Your task to perform on an android device: Clear the shopping cart on target.com. Add "amazon basics triple a" to the cart on target.com, then select checkout. Image 0: 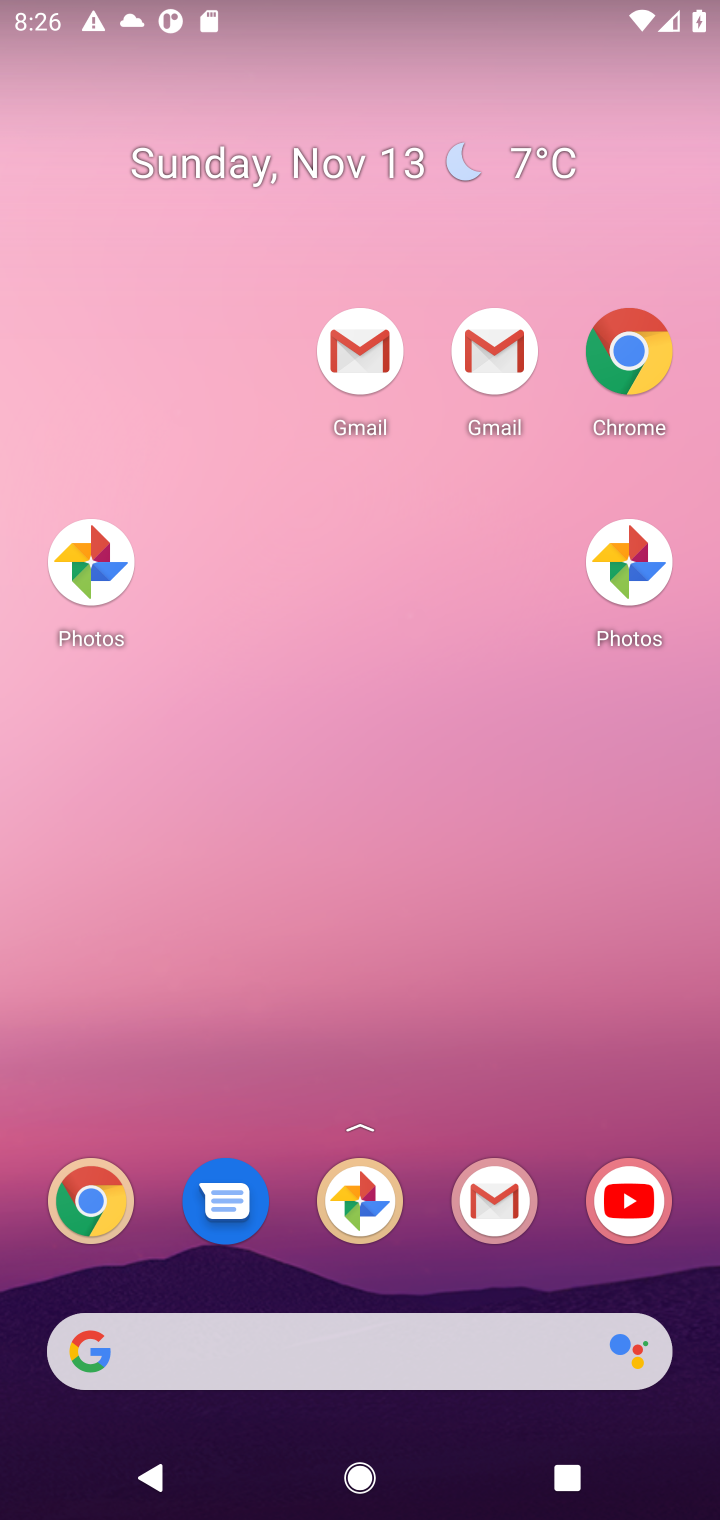
Step 0: drag from (421, 1041) to (477, 82)
Your task to perform on an android device: Clear the shopping cart on target.com. Add "amazon basics triple a" to the cart on target.com, then select checkout. Image 1: 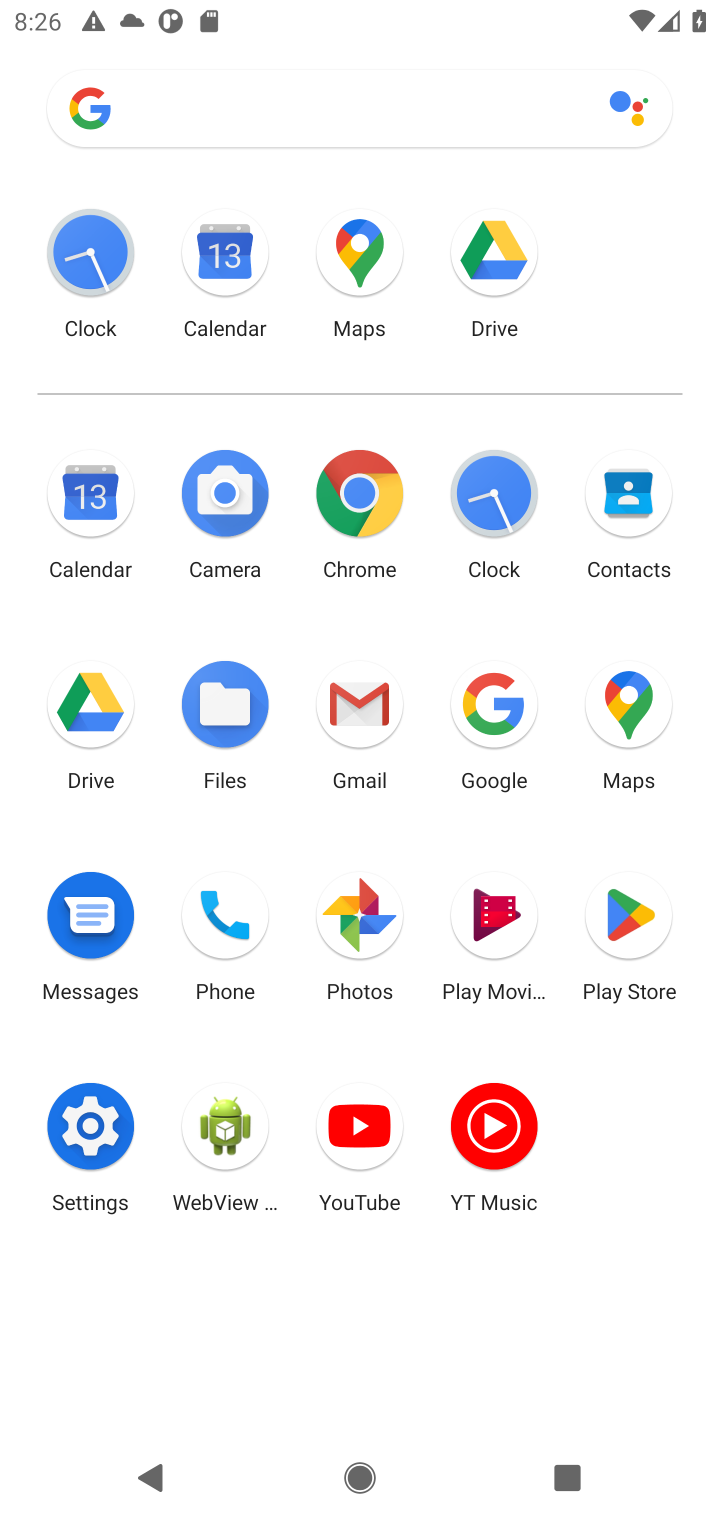
Step 1: click (379, 506)
Your task to perform on an android device: Clear the shopping cart on target.com. Add "amazon basics triple a" to the cart on target.com, then select checkout. Image 2: 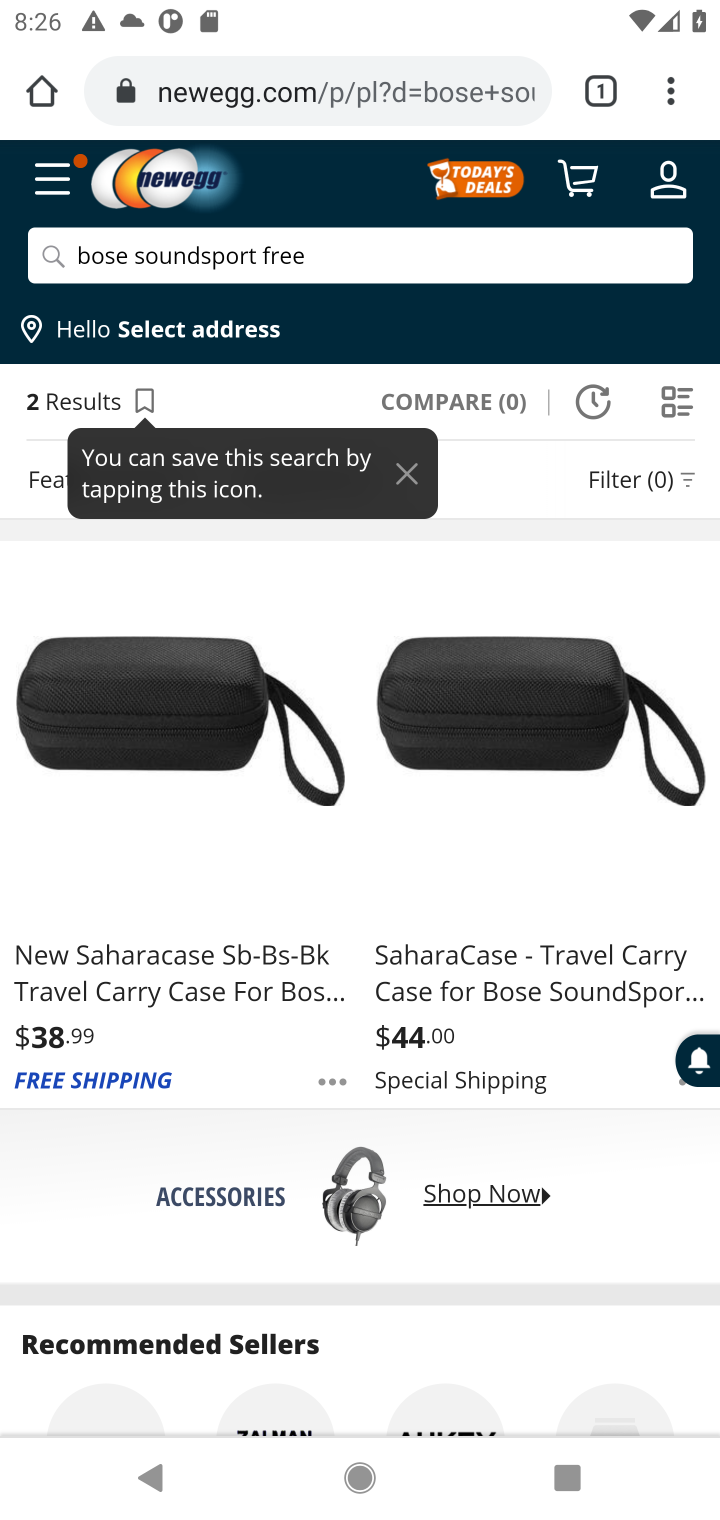
Step 2: click (351, 94)
Your task to perform on an android device: Clear the shopping cart on target.com. Add "amazon basics triple a" to the cart on target.com, then select checkout. Image 3: 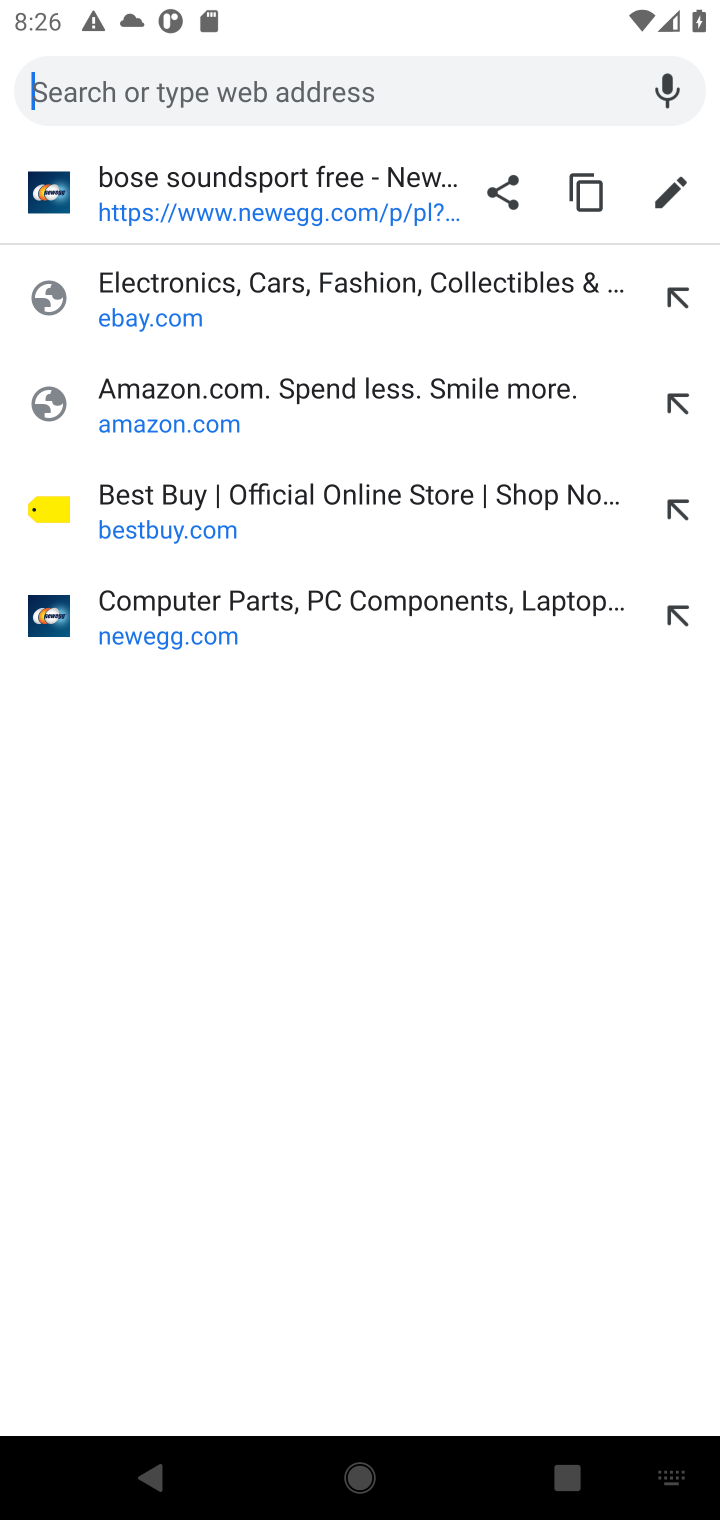
Step 3: type "target.com"
Your task to perform on an android device: Clear the shopping cart on target.com. Add "amazon basics triple a" to the cart on target.com, then select checkout. Image 4: 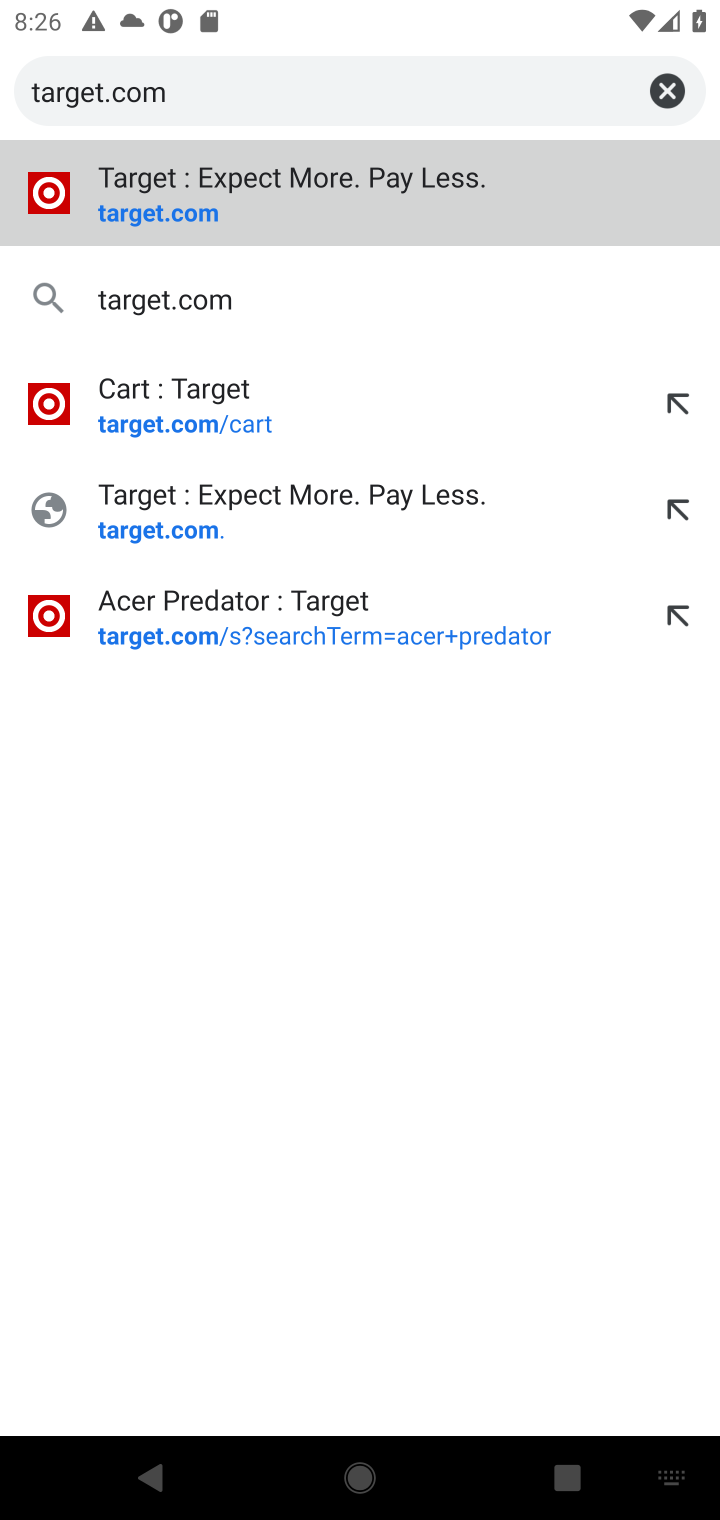
Step 4: press enter
Your task to perform on an android device: Clear the shopping cart on target.com. Add "amazon basics triple a" to the cart on target.com, then select checkout. Image 5: 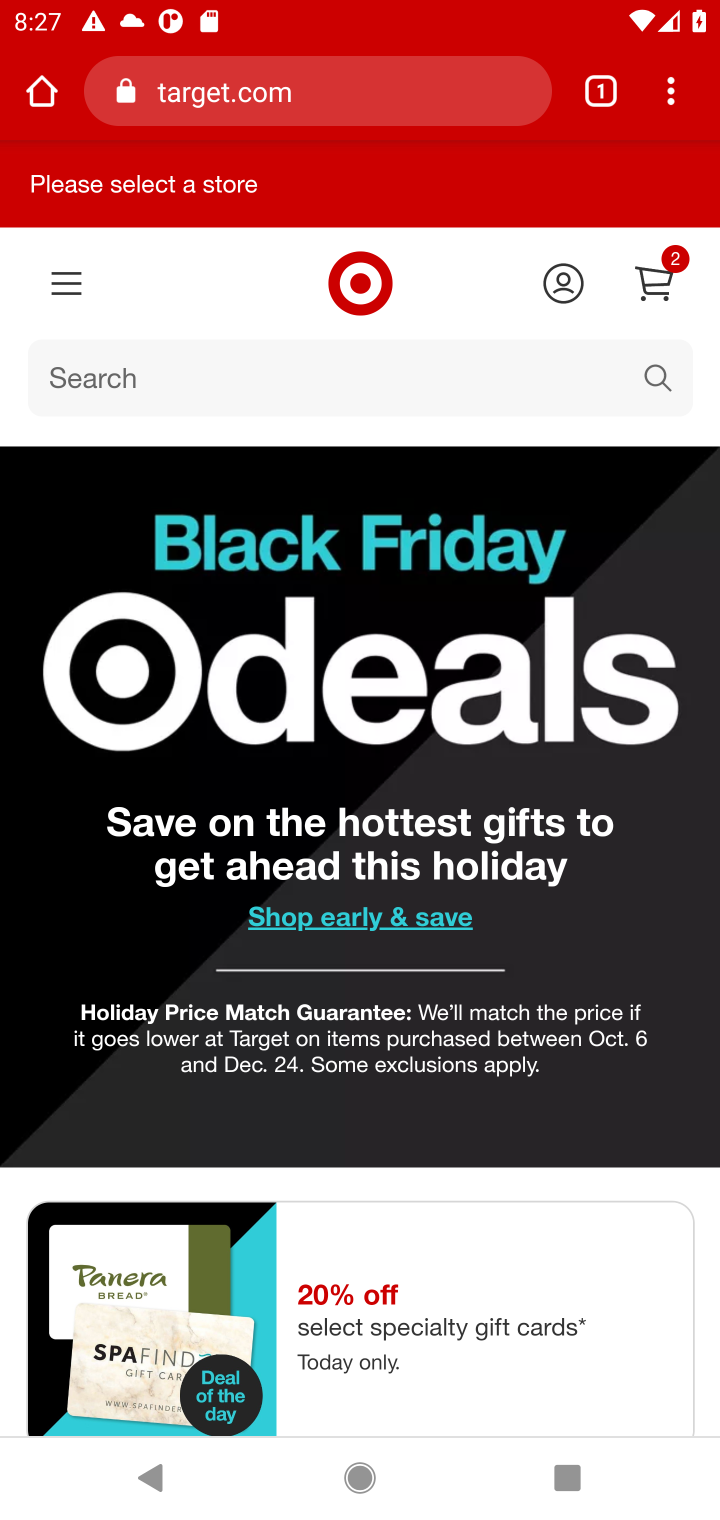
Step 5: click (659, 274)
Your task to perform on an android device: Clear the shopping cart on target.com. Add "amazon basics triple a" to the cart on target.com, then select checkout. Image 6: 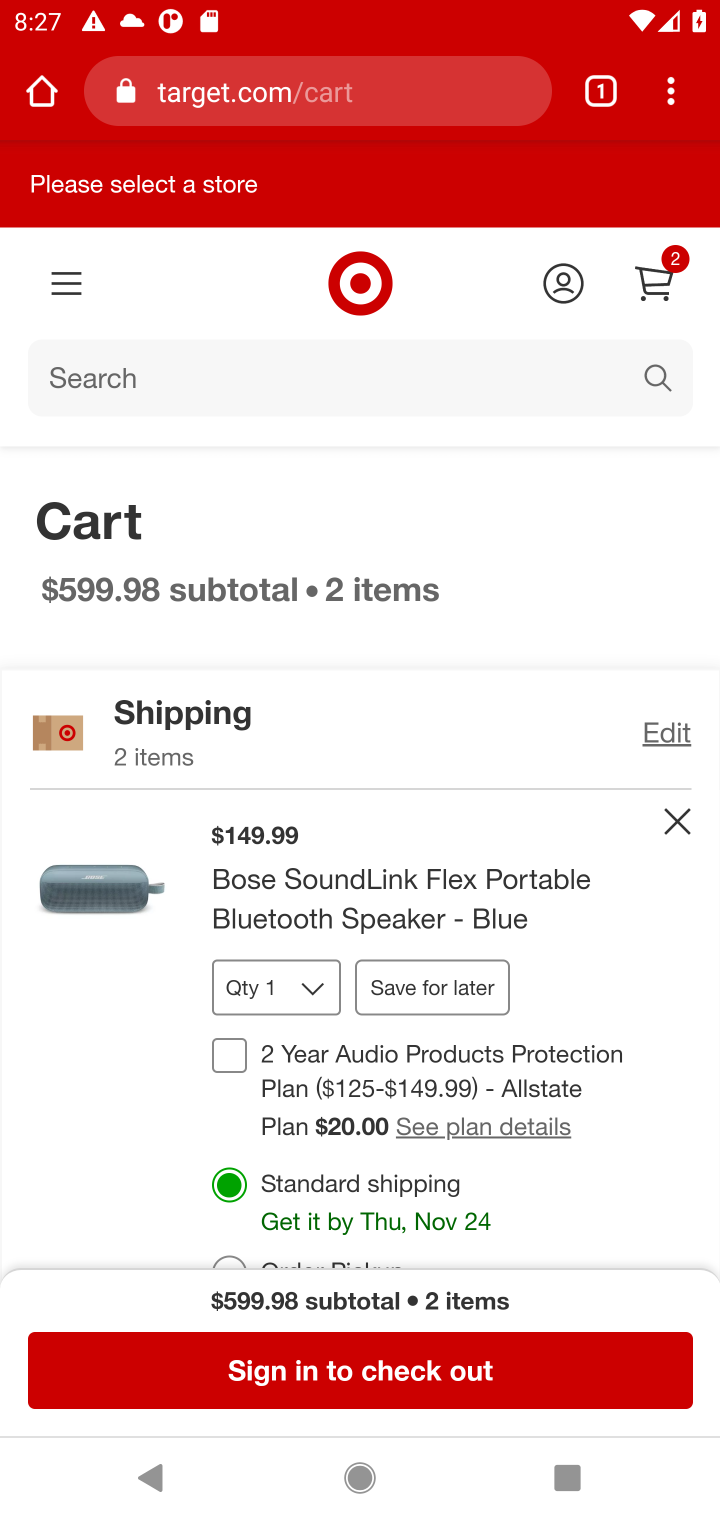
Step 6: click (676, 808)
Your task to perform on an android device: Clear the shopping cart on target.com. Add "amazon basics triple a" to the cart on target.com, then select checkout. Image 7: 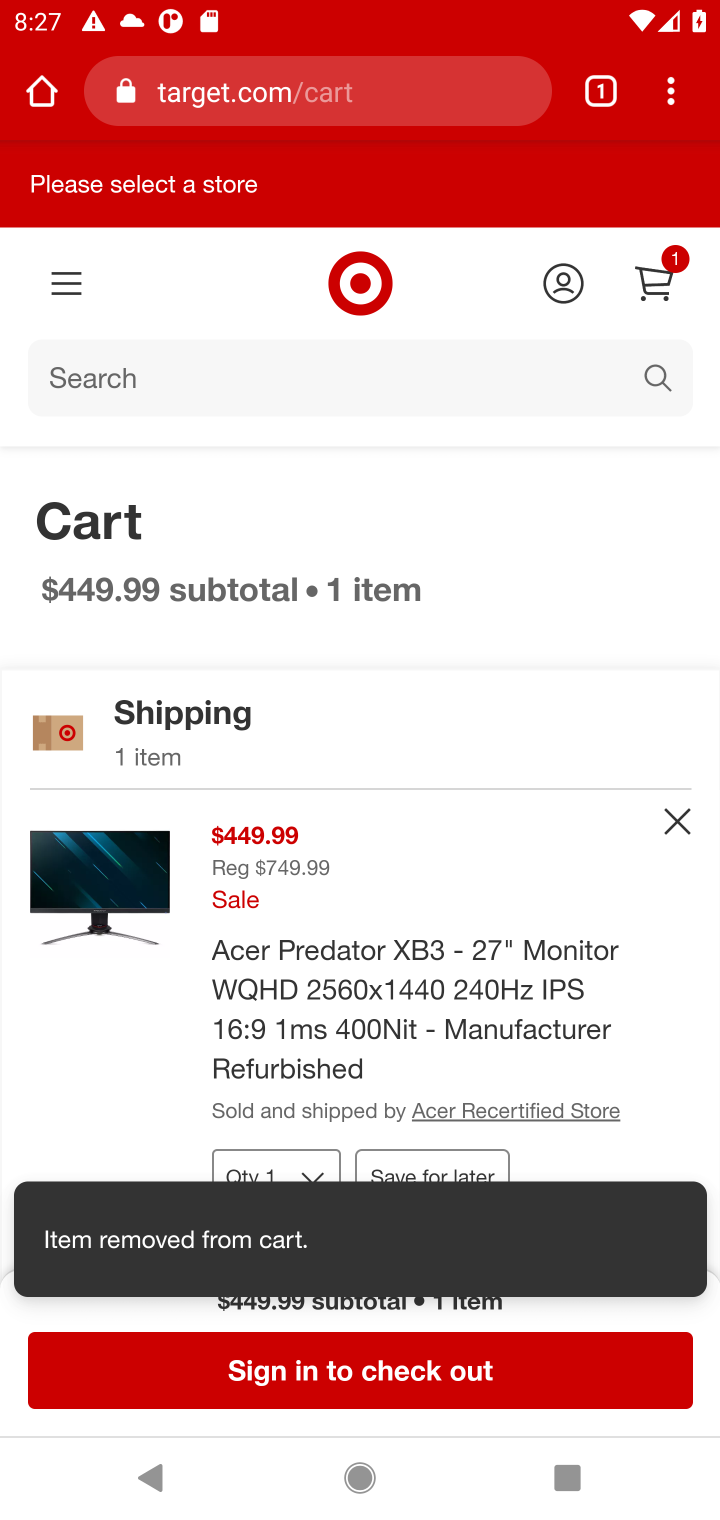
Step 7: click (667, 821)
Your task to perform on an android device: Clear the shopping cart on target.com. Add "amazon basics triple a" to the cart on target.com, then select checkout. Image 8: 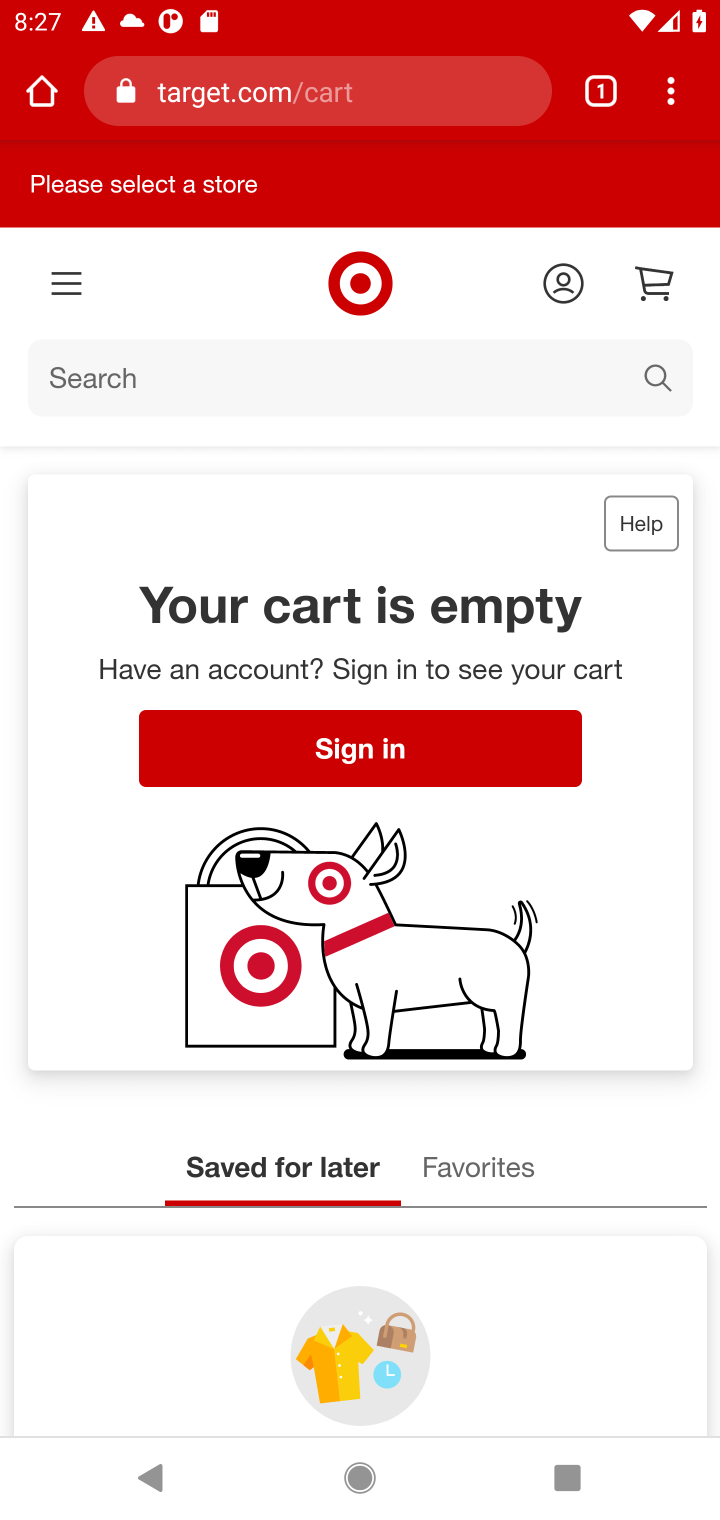
Step 8: click (268, 380)
Your task to perform on an android device: Clear the shopping cart on target.com. Add "amazon basics triple a" to the cart on target.com, then select checkout. Image 9: 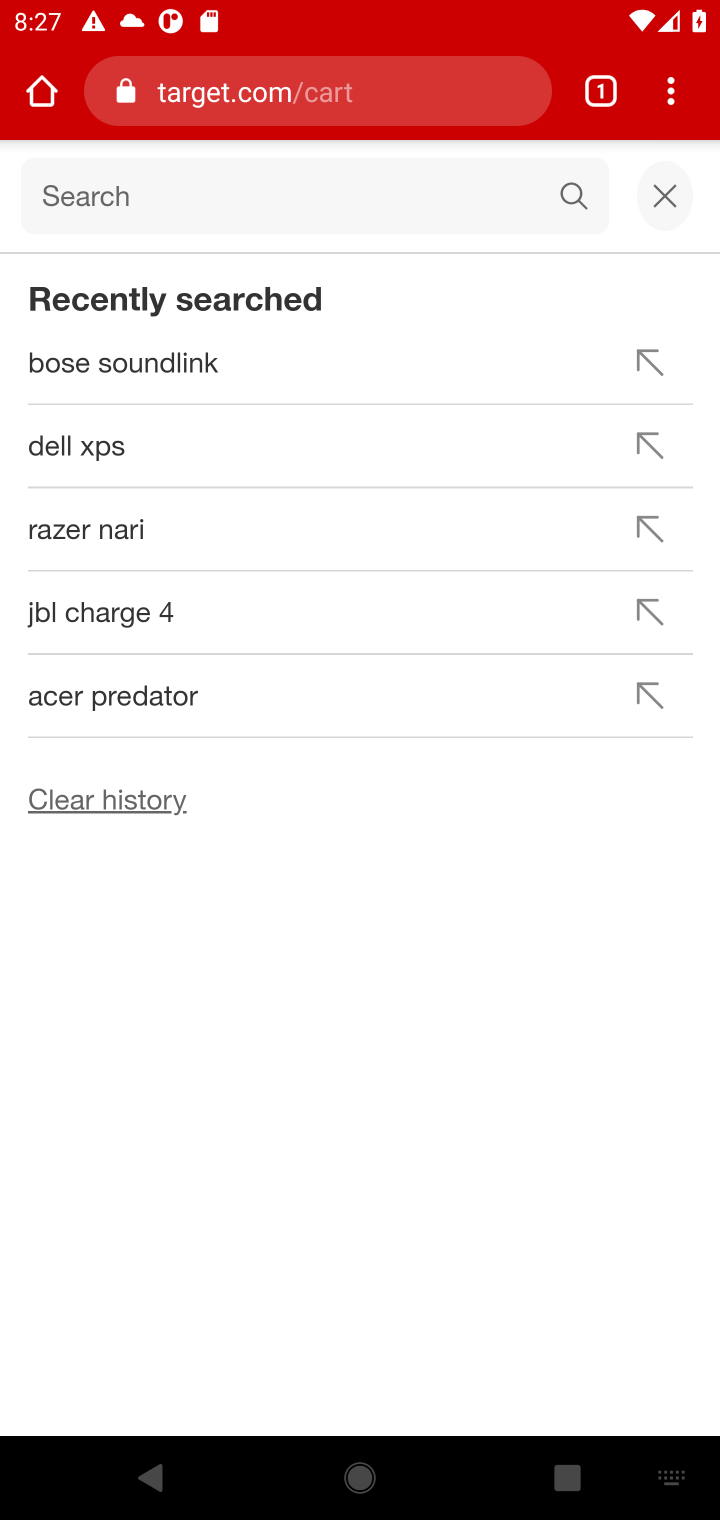
Step 9: type "amazon basics triple a"
Your task to perform on an android device: Clear the shopping cart on target.com. Add "amazon basics triple a" to the cart on target.com, then select checkout. Image 10: 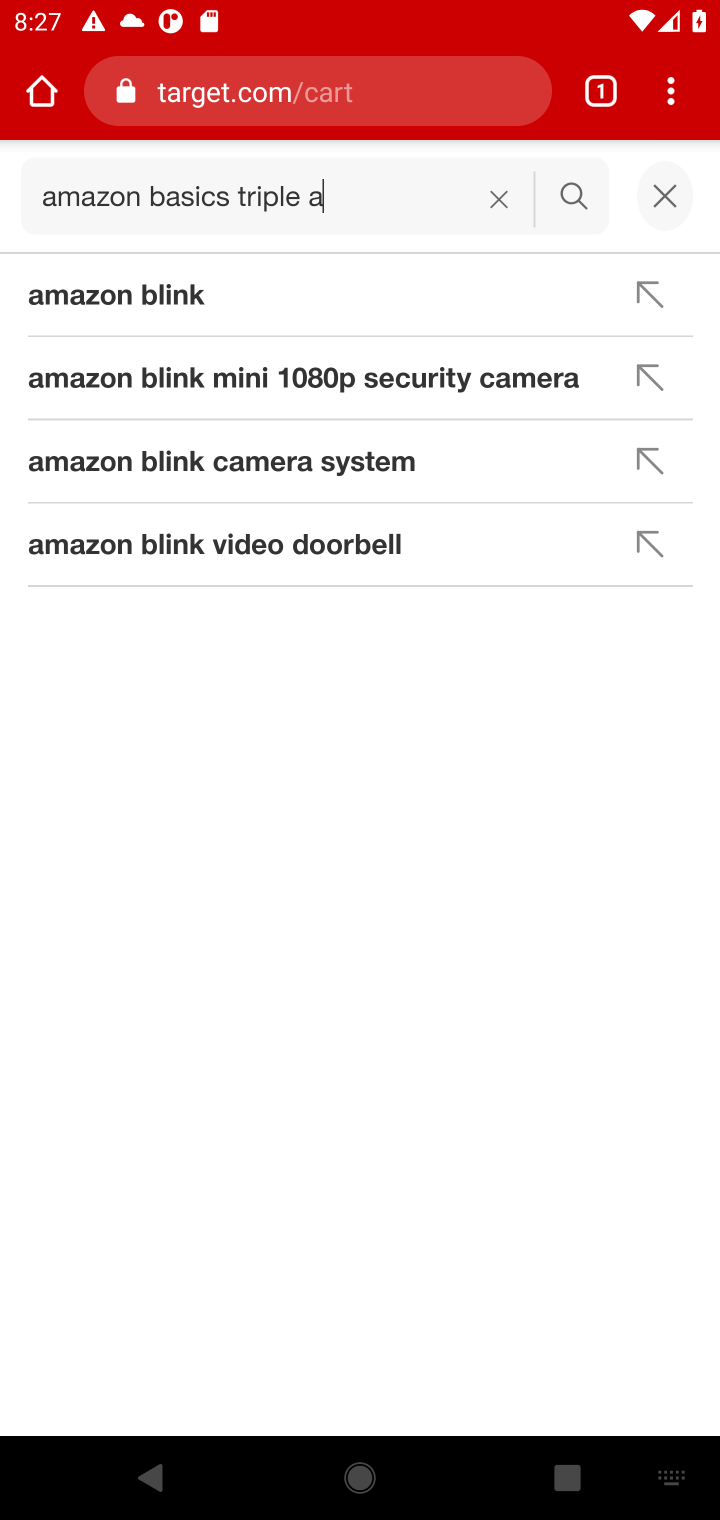
Step 10: press enter
Your task to perform on an android device: Clear the shopping cart on target.com. Add "amazon basics triple a" to the cart on target.com, then select checkout. Image 11: 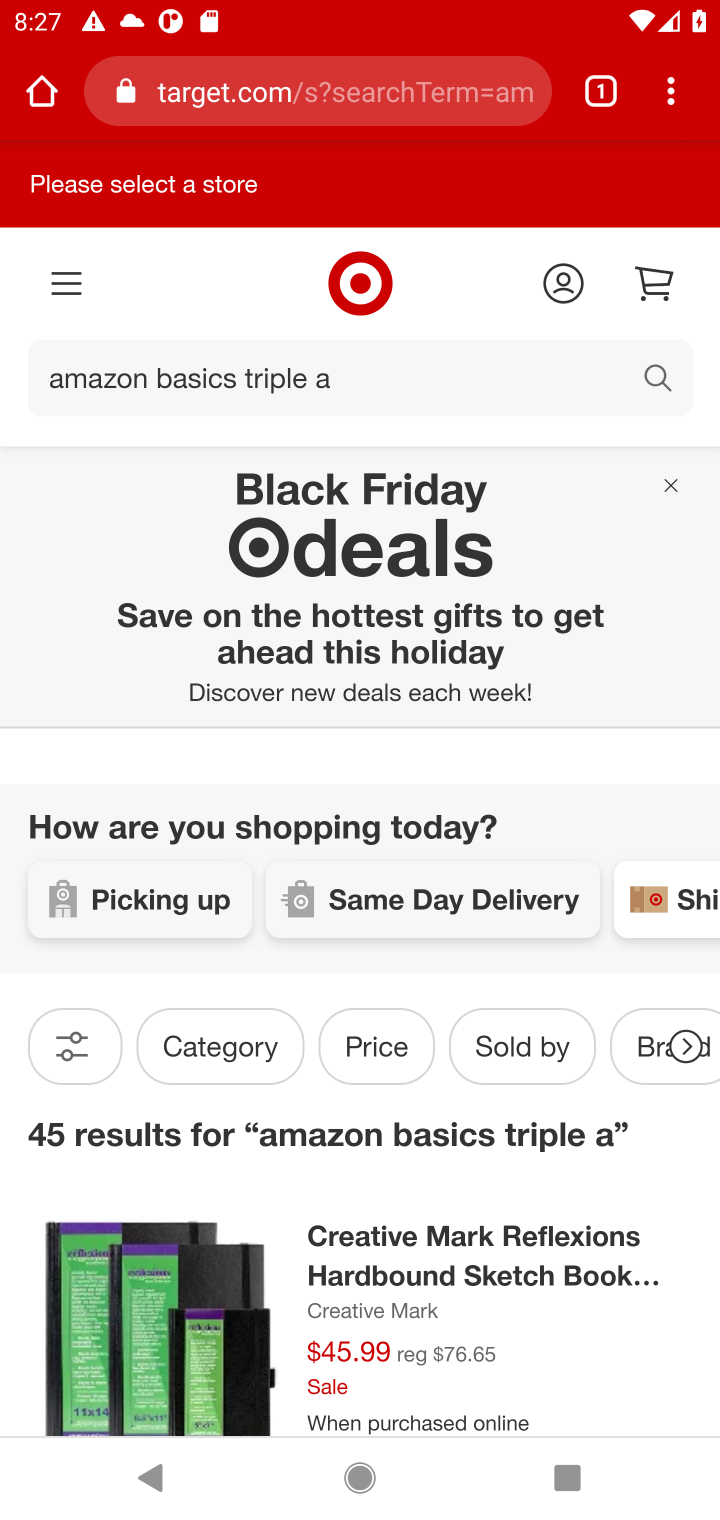
Step 11: task complete